Your task to perform on an android device: toggle wifi Image 0: 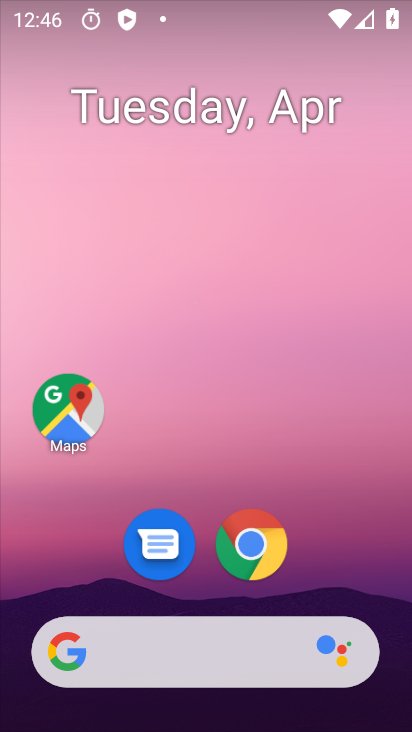
Step 0: drag from (392, 534) to (392, 22)
Your task to perform on an android device: toggle wifi Image 1: 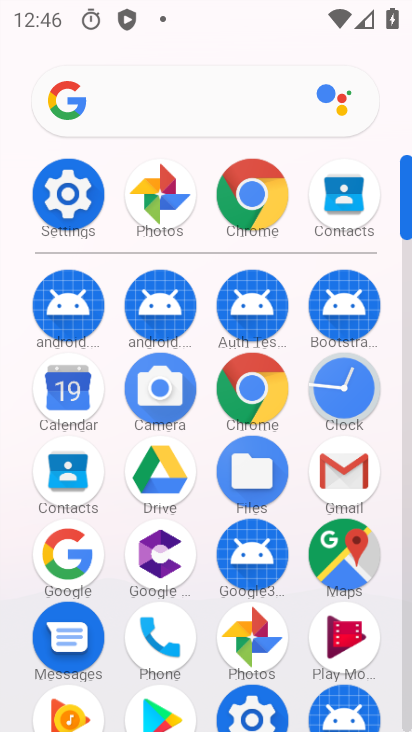
Step 1: click (72, 192)
Your task to perform on an android device: toggle wifi Image 2: 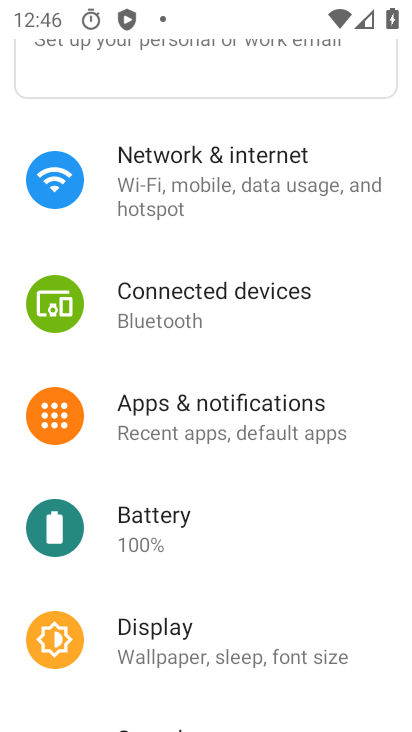
Step 2: click (159, 179)
Your task to perform on an android device: toggle wifi Image 3: 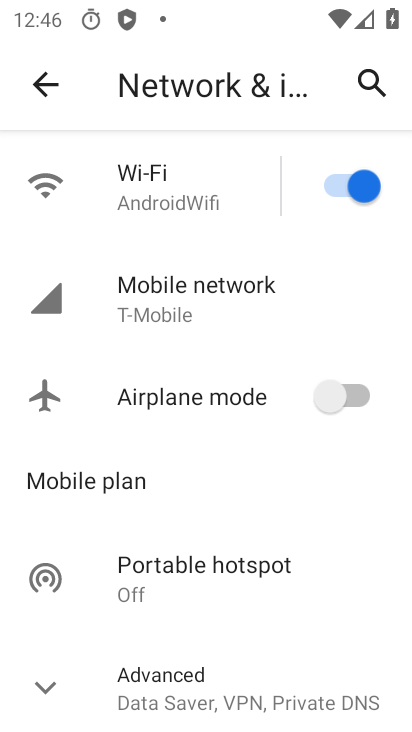
Step 3: click (351, 184)
Your task to perform on an android device: toggle wifi Image 4: 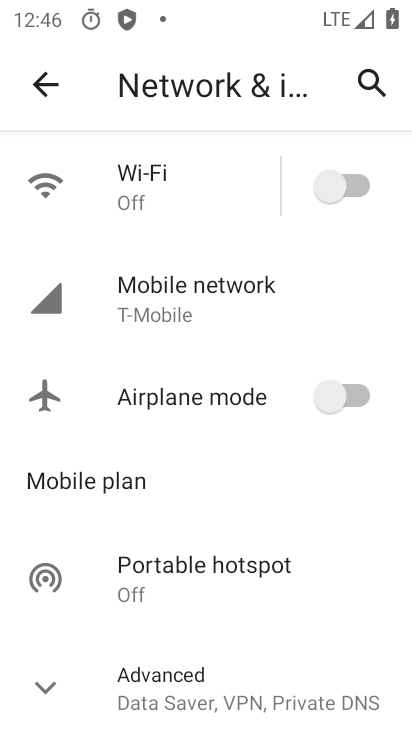
Step 4: task complete